Your task to perform on an android device: Open notification settings Image 0: 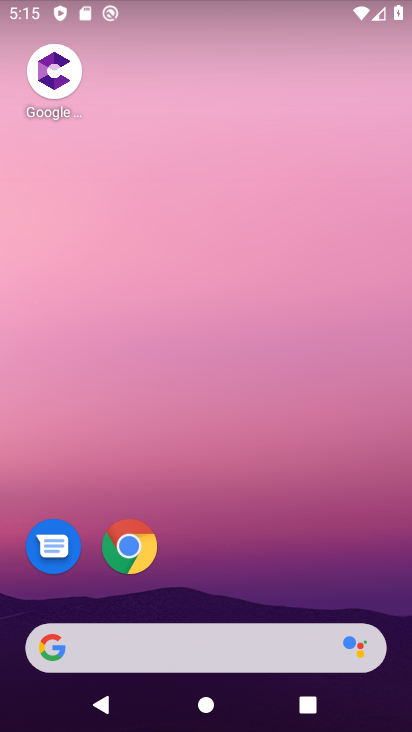
Step 0: drag from (339, 554) to (290, 115)
Your task to perform on an android device: Open notification settings Image 1: 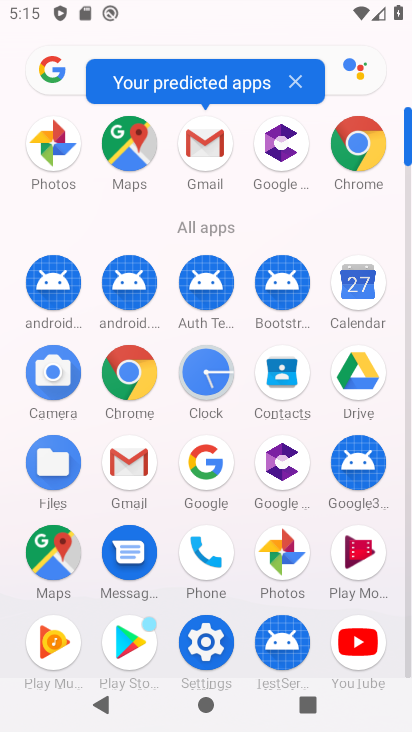
Step 1: click (206, 640)
Your task to perform on an android device: Open notification settings Image 2: 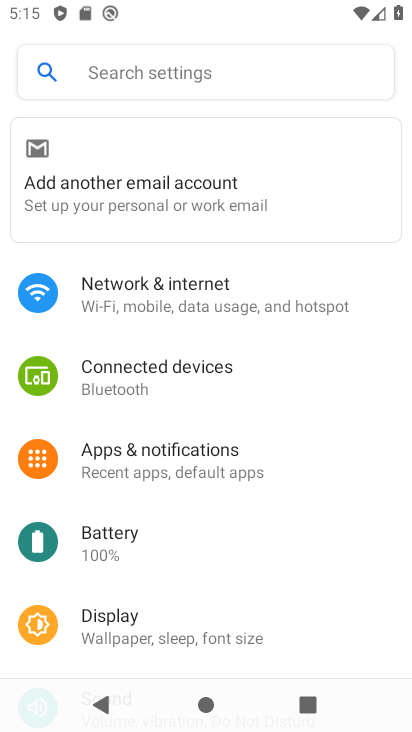
Step 2: click (174, 460)
Your task to perform on an android device: Open notification settings Image 3: 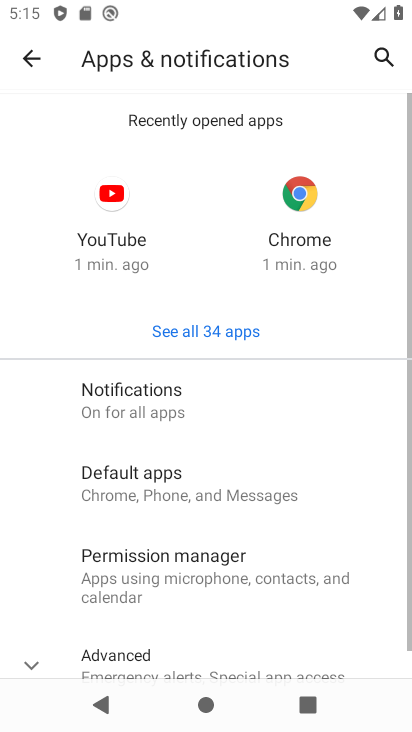
Step 3: task complete